Your task to perform on an android device: Open privacy settings Image 0: 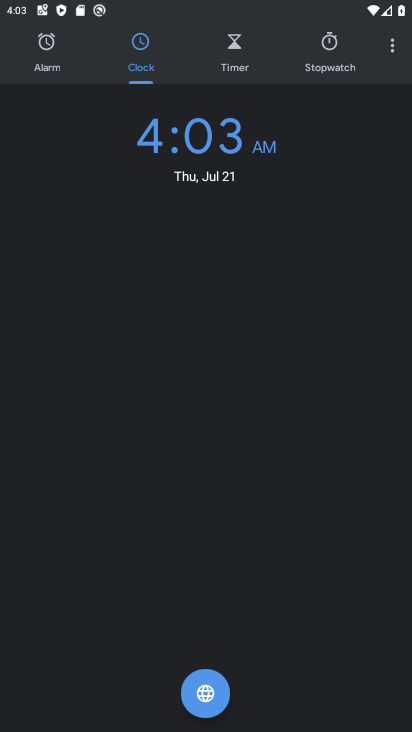
Step 0: press home button
Your task to perform on an android device: Open privacy settings Image 1: 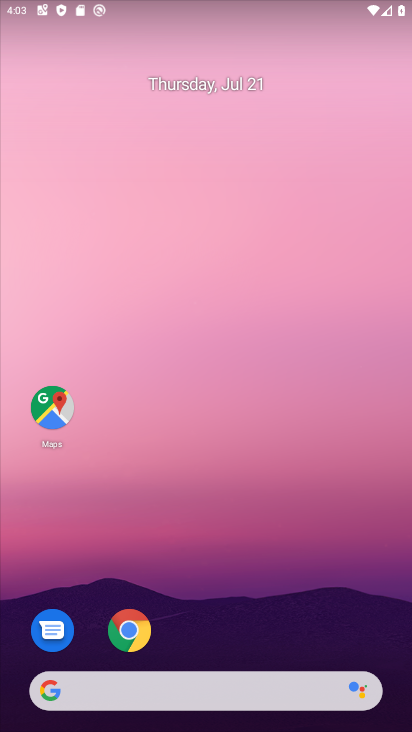
Step 1: drag from (44, 653) to (285, 83)
Your task to perform on an android device: Open privacy settings Image 2: 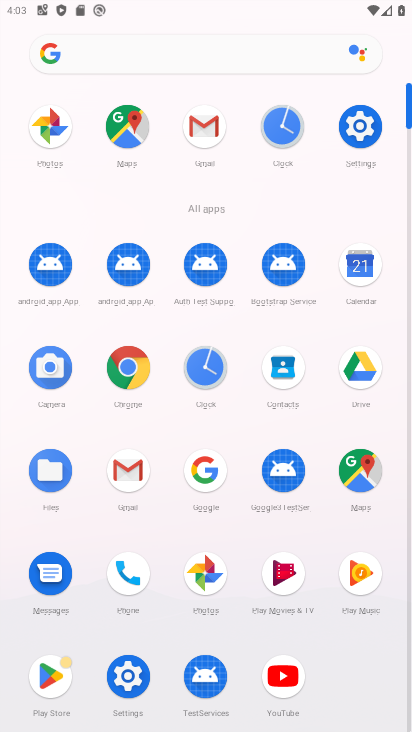
Step 2: click (135, 689)
Your task to perform on an android device: Open privacy settings Image 3: 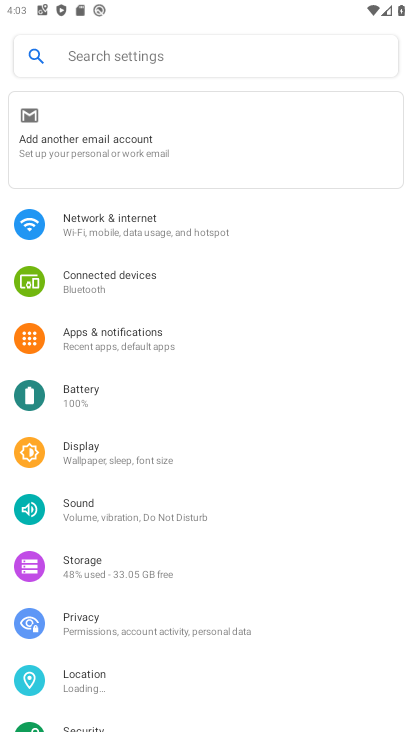
Step 3: click (104, 627)
Your task to perform on an android device: Open privacy settings Image 4: 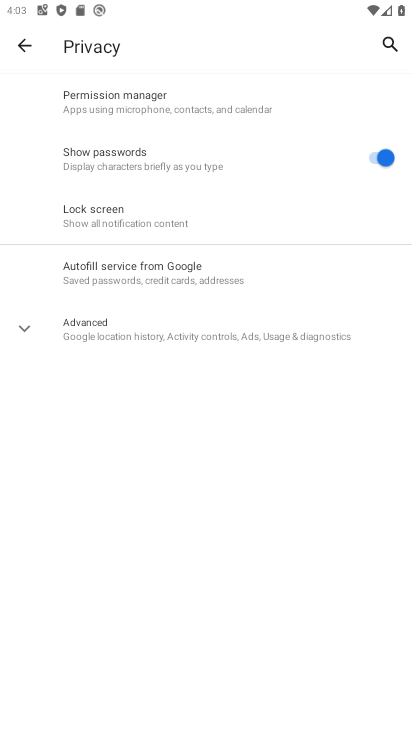
Step 4: task complete